Your task to perform on an android device: Go to privacy settings Image 0: 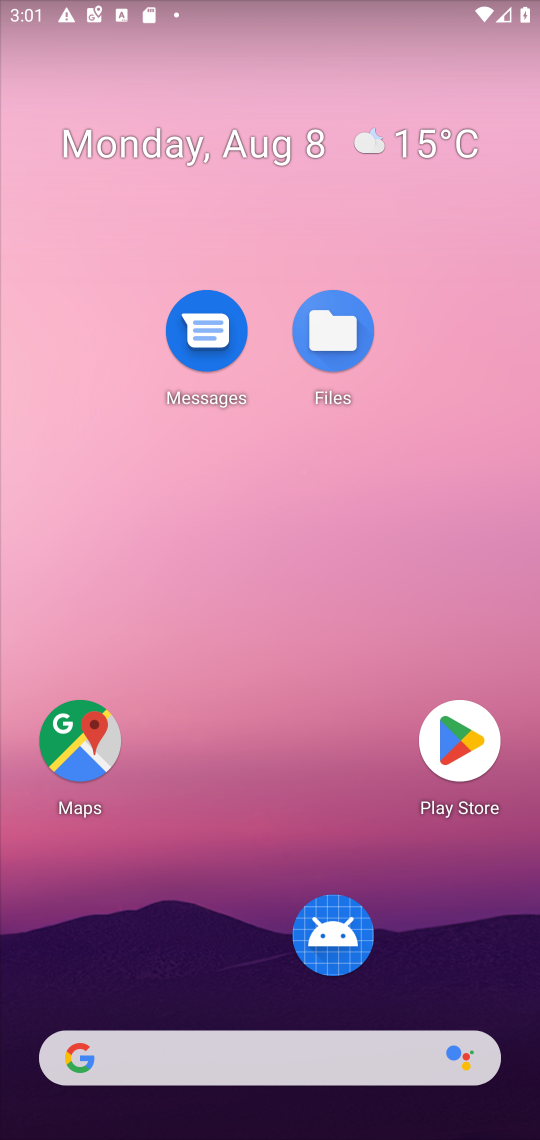
Step 0: drag from (284, 1071) to (366, 185)
Your task to perform on an android device: Go to privacy settings Image 1: 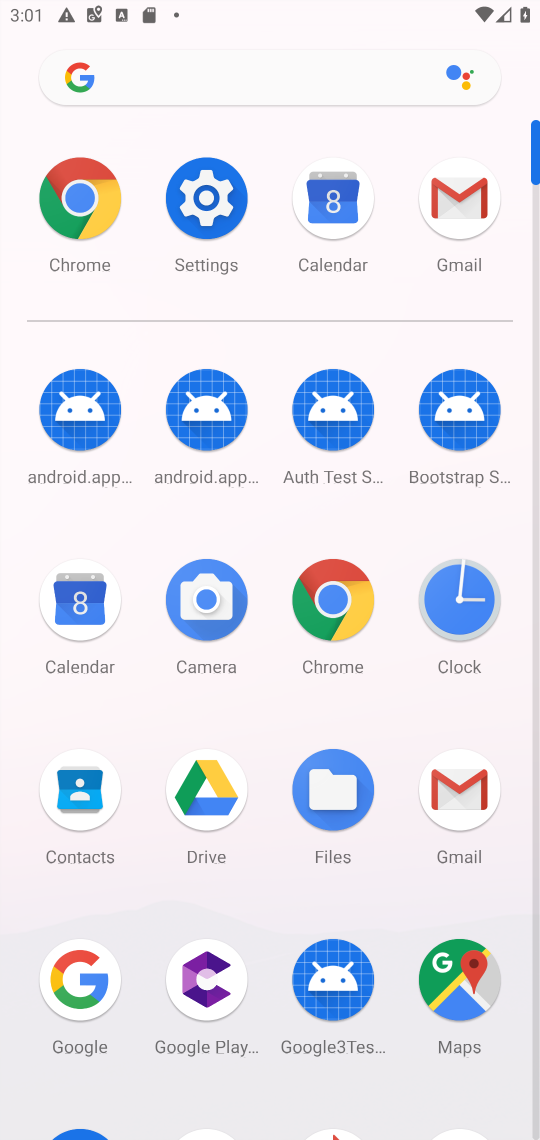
Step 1: click (218, 220)
Your task to perform on an android device: Go to privacy settings Image 2: 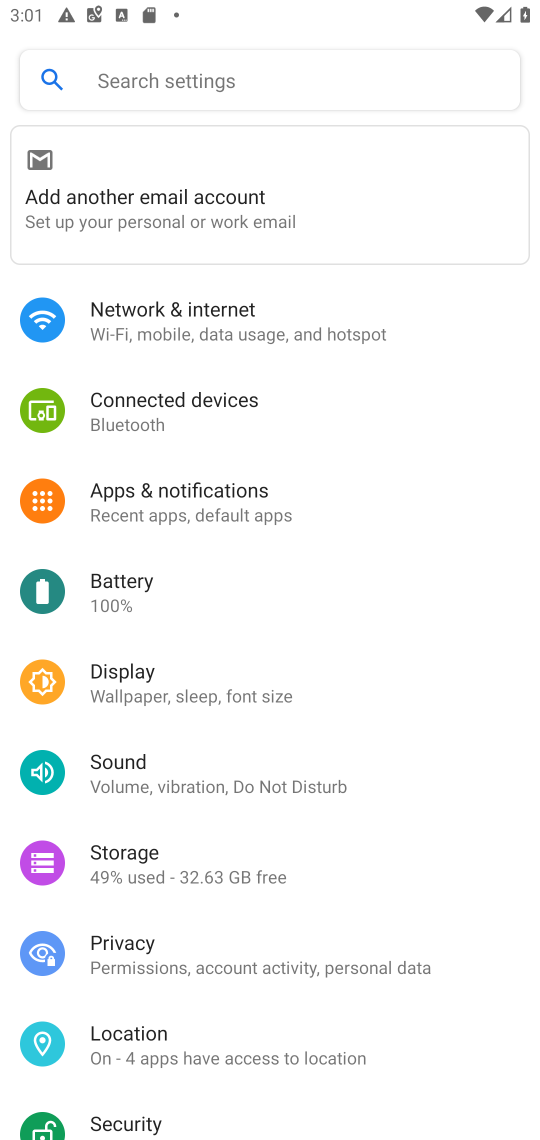
Step 2: click (147, 955)
Your task to perform on an android device: Go to privacy settings Image 3: 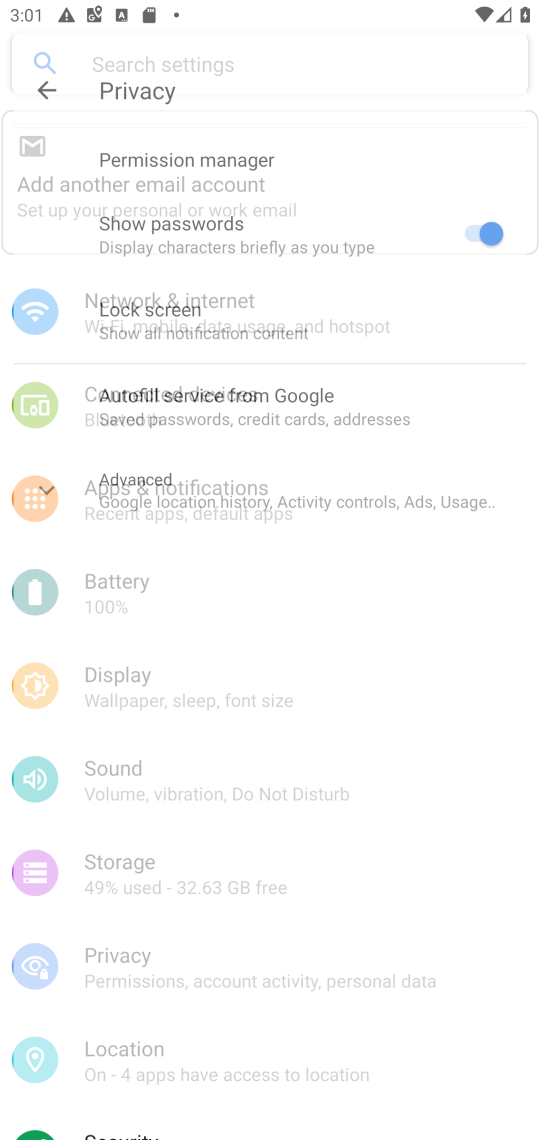
Step 3: task complete